Your task to perform on an android device: change the clock style Image 0: 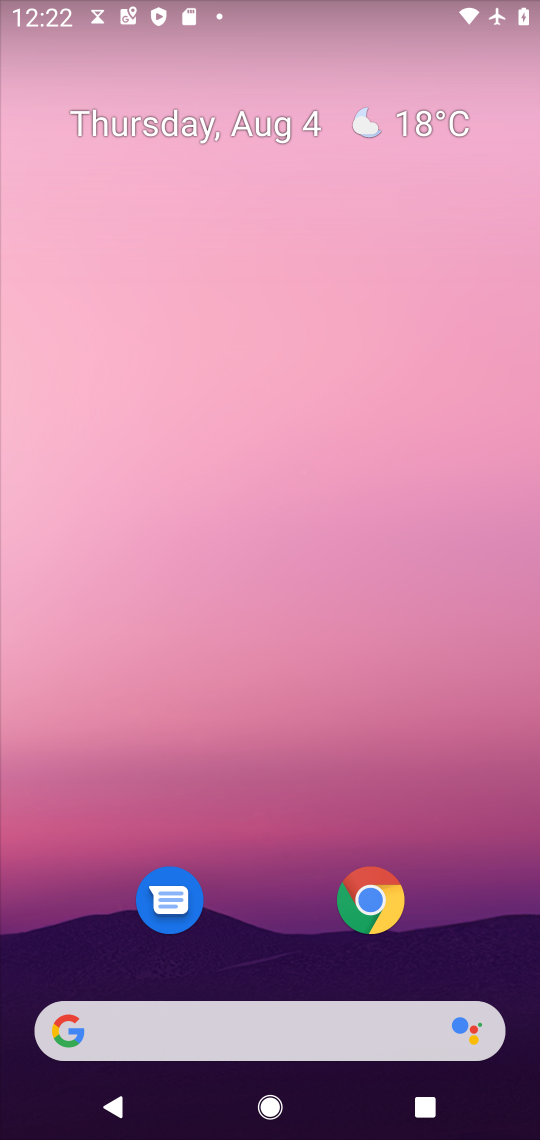
Step 0: drag from (331, 844) to (332, 243)
Your task to perform on an android device: change the clock style Image 1: 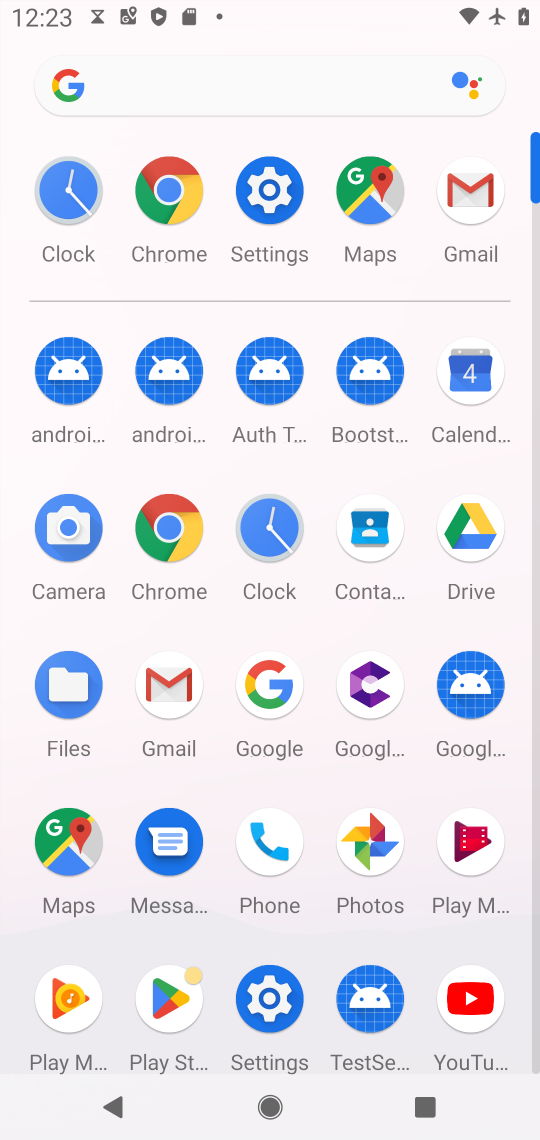
Step 1: click (58, 203)
Your task to perform on an android device: change the clock style Image 2: 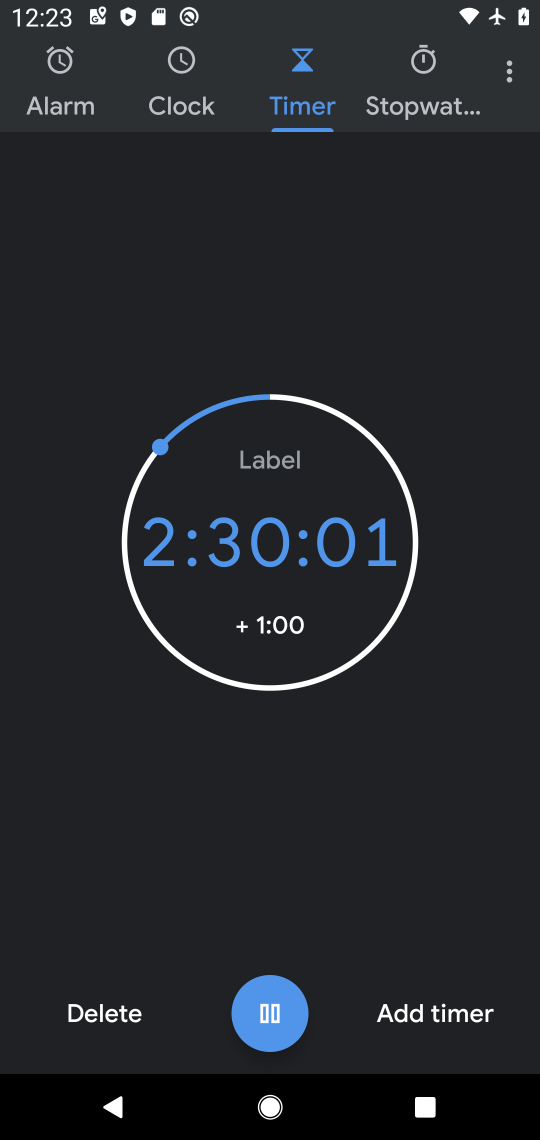
Step 2: click (510, 81)
Your task to perform on an android device: change the clock style Image 3: 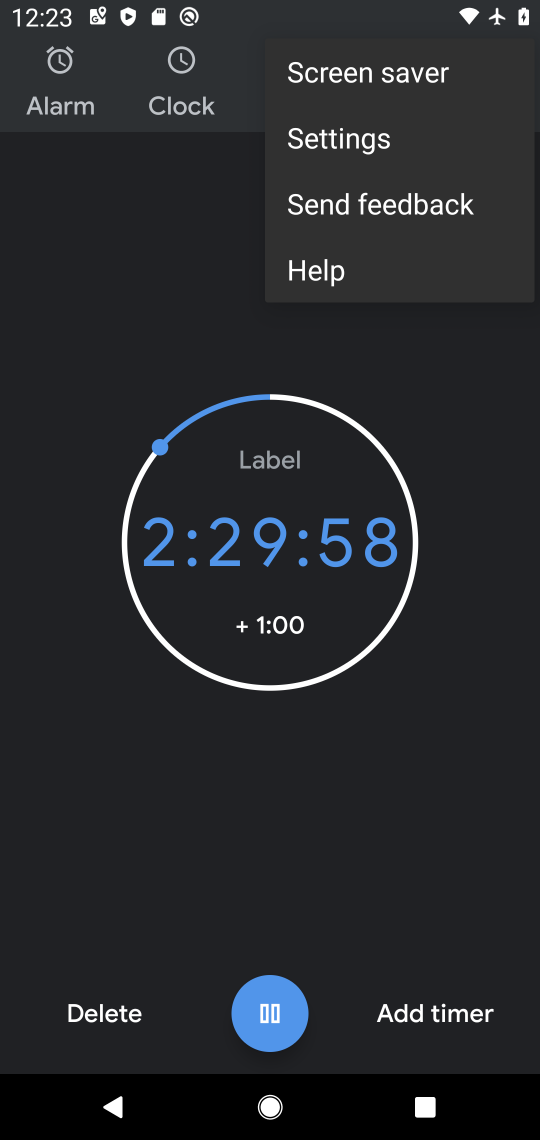
Step 3: click (342, 134)
Your task to perform on an android device: change the clock style Image 4: 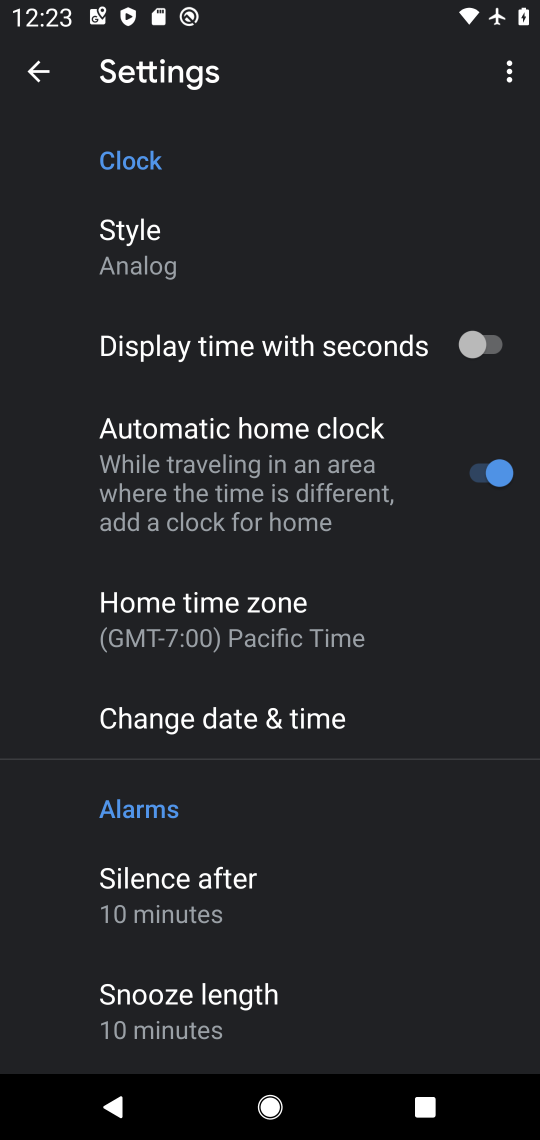
Step 4: click (131, 242)
Your task to perform on an android device: change the clock style Image 5: 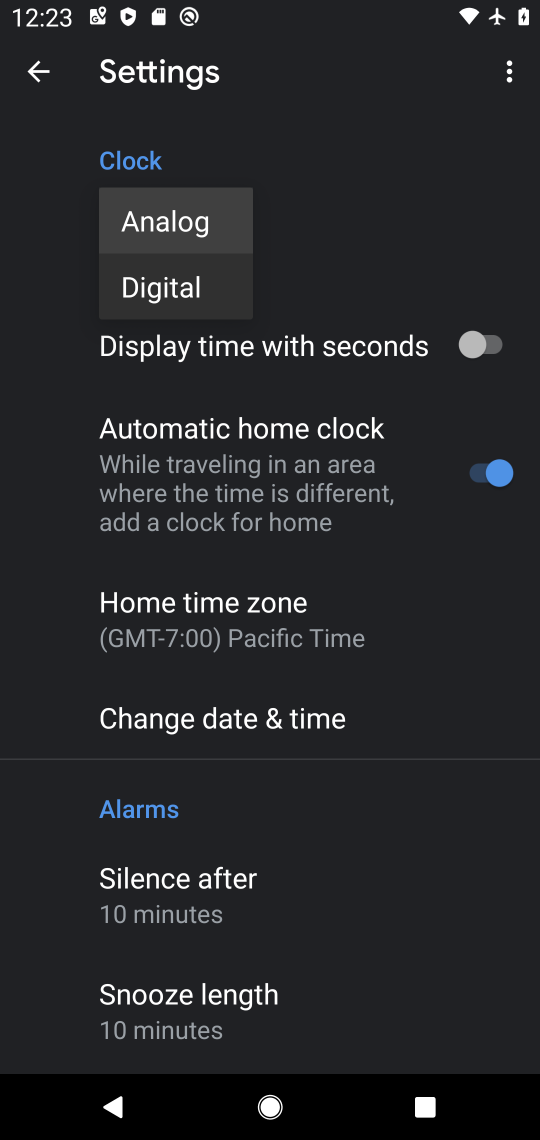
Step 5: click (155, 295)
Your task to perform on an android device: change the clock style Image 6: 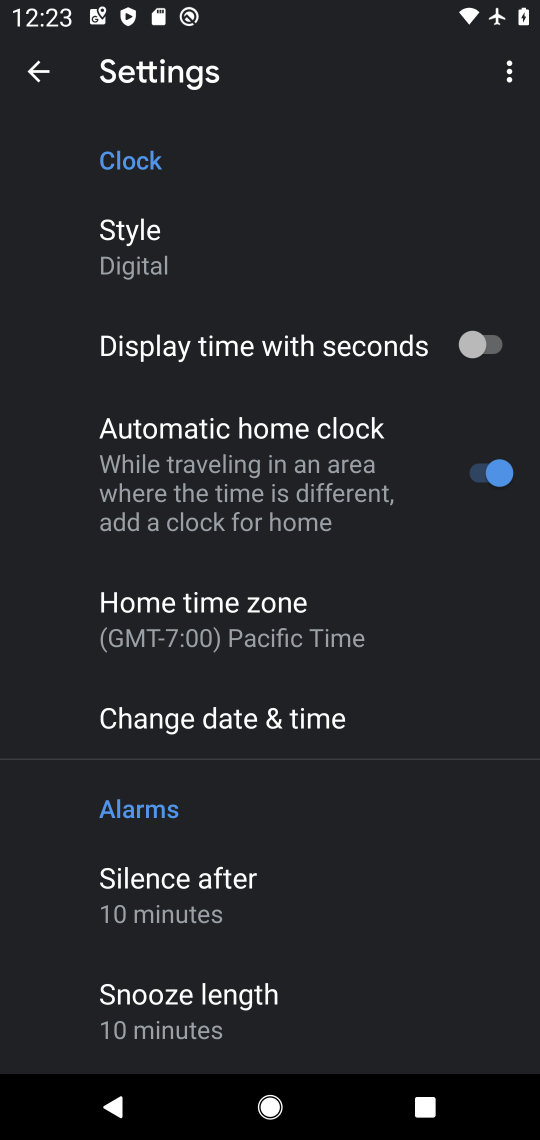
Step 6: task complete